Your task to perform on an android device: uninstall "Cash App" Image 0: 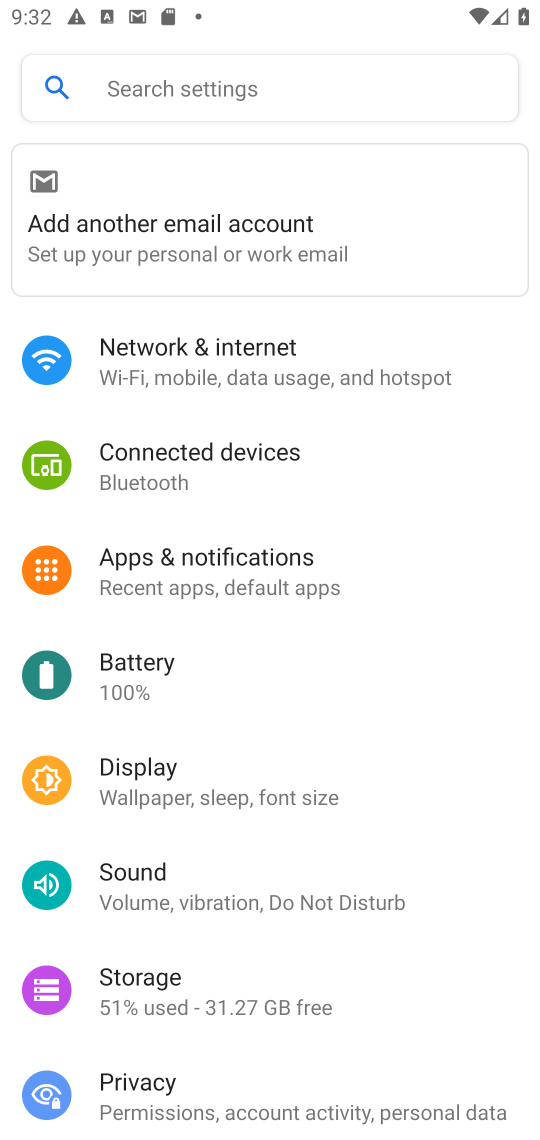
Step 0: press home button
Your task to perform on an android device: uninstall "Cash App" Image 1: 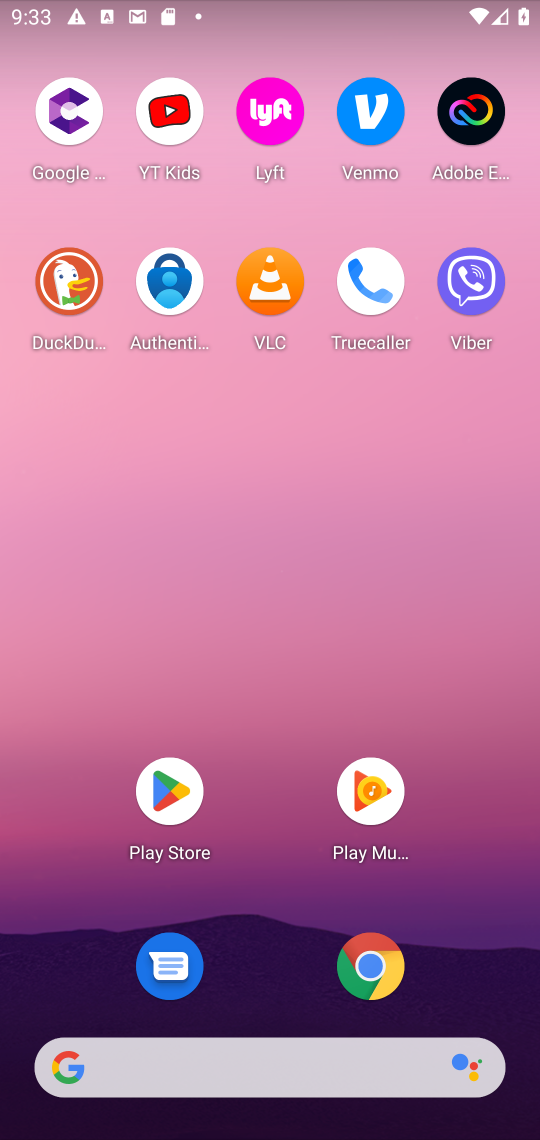
Step 1: drag from (299, 494) to (539, 512)
Your task to perform on an android device: uninstall "Cash App" Image 2: 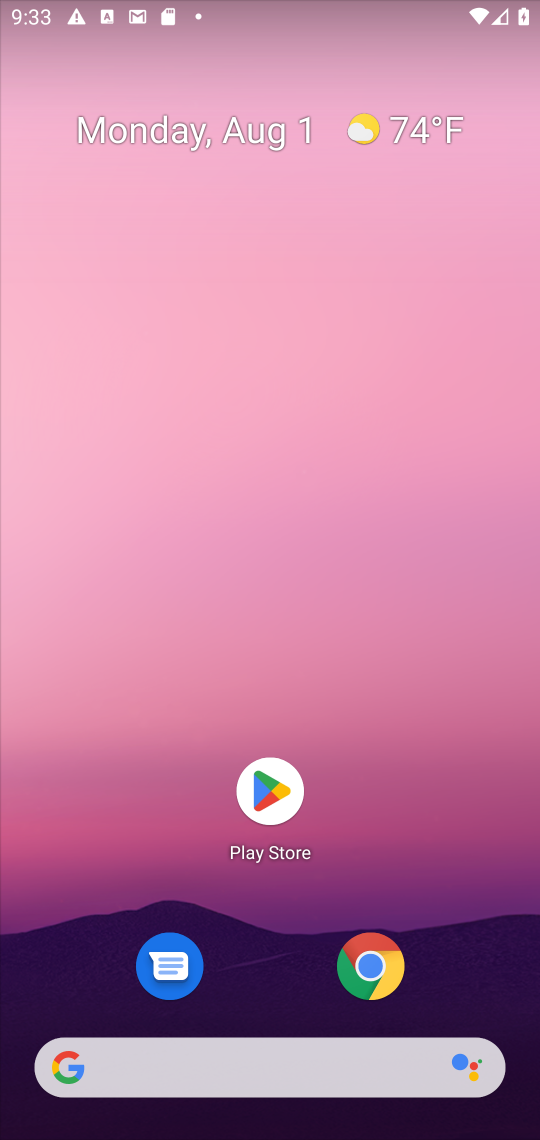
Step 2: click (263, 794)
Your task to perform on an android device: uninstall "Cash App" Image 3: 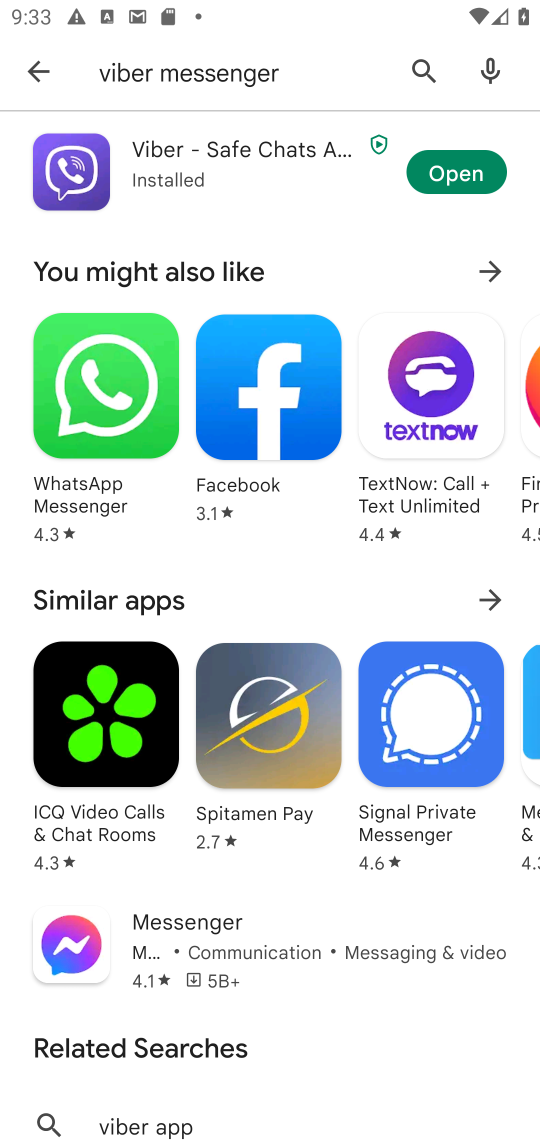
Step 3: click (424, 63)
Your task to perform on an android device: uninstall "Cash App" Image 4: 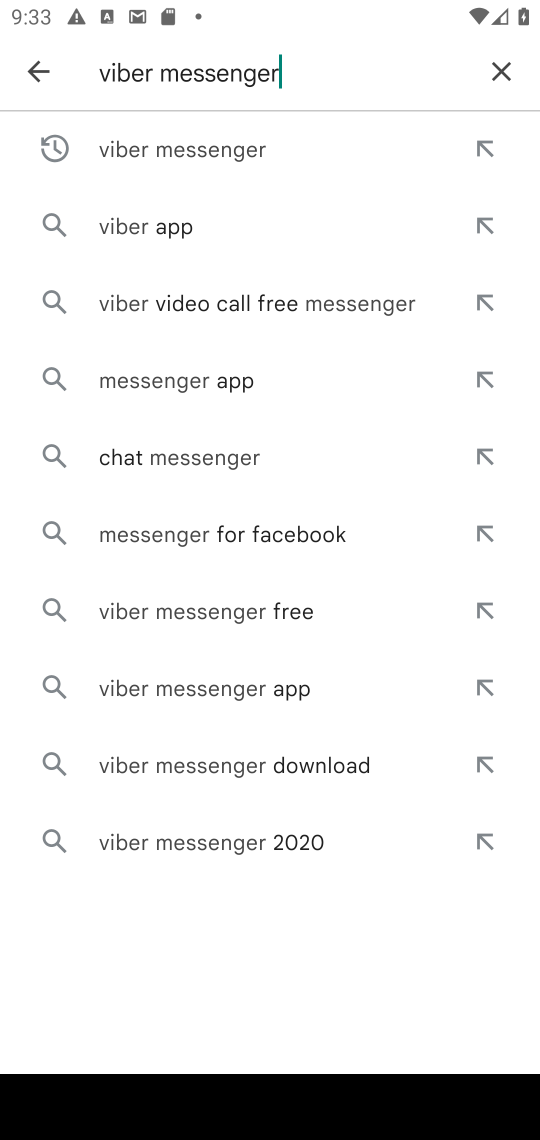
Step 4: click (505, 61)
Your task to perform on an android device: uninstall "Cash App" Image 5: 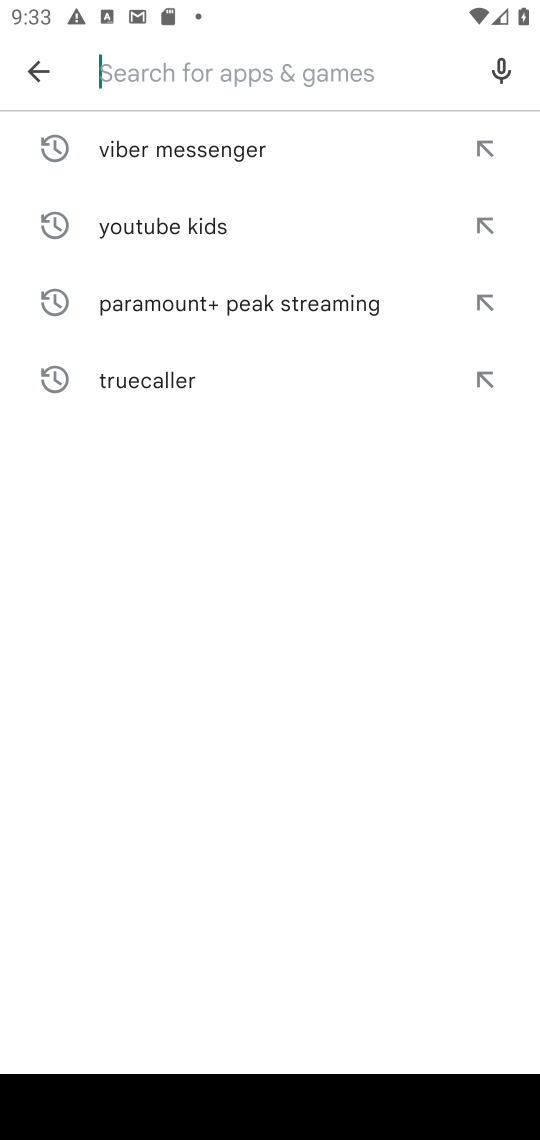
Step 5: type "Cash App"
Your task to perform on an android device: uninstall "Cash App" Image 6: 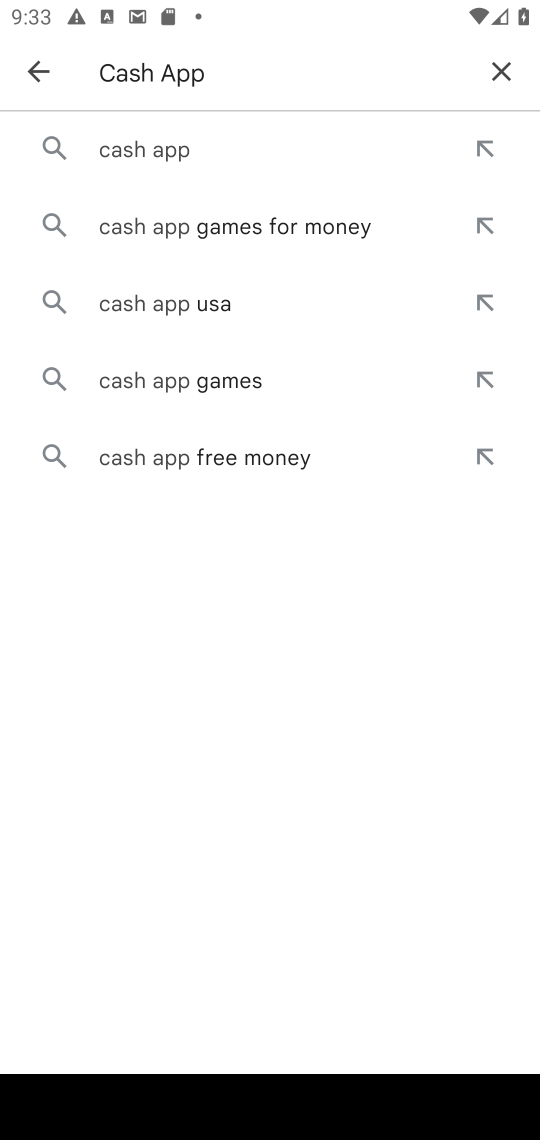
Step 6: click (182, 142)
Your task to perform on an android device: uninstall "Cash App" Image 7: 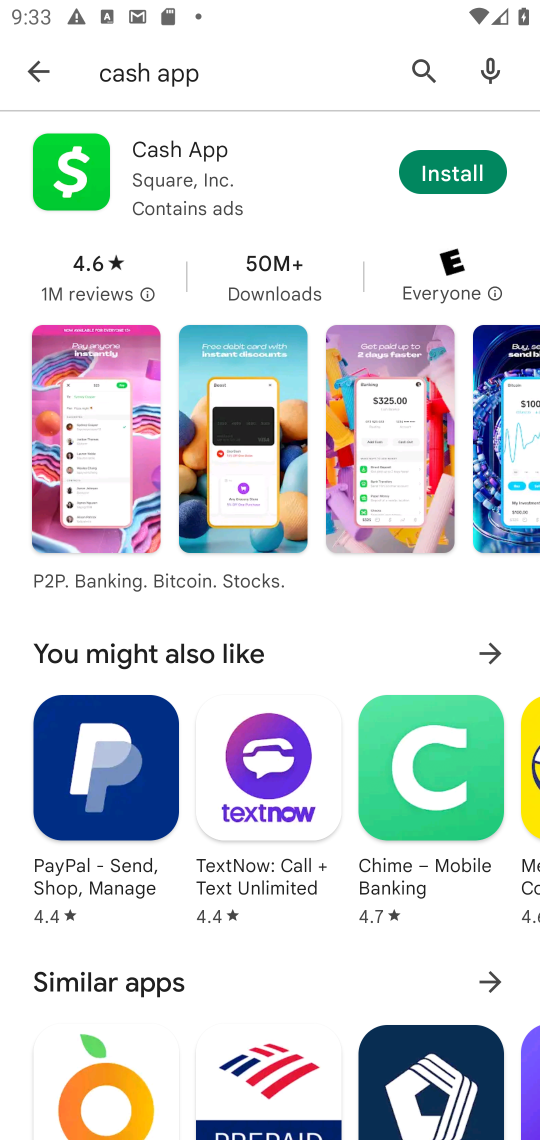
Step 7: task complete